Your task to perform on an android device: delete a single message in the gmail app Image 0: 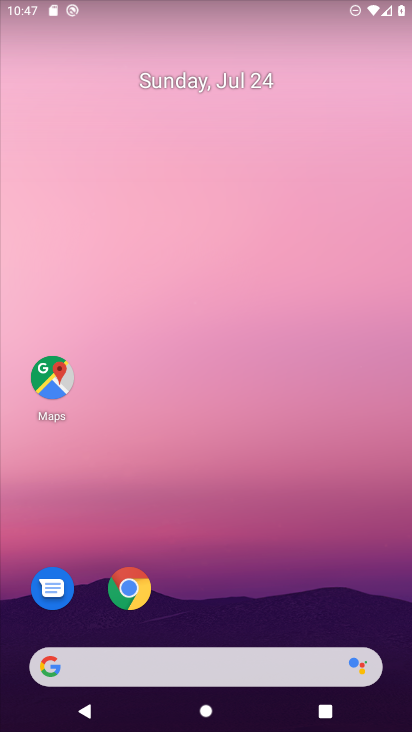
Step 0: drag from (281, 662) to (296, 82)
Your task to perform on an android device: delete a single message in the gmail app Image 1: 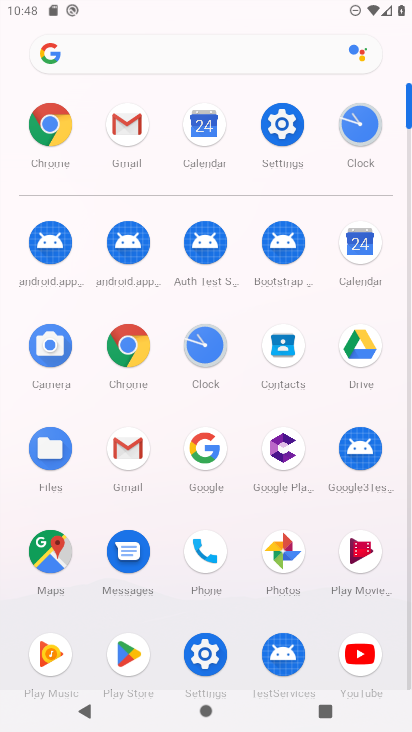
Step 1: click (131, 127)
Your task to perform on an android device: delete a single message in the gmail app Image 2: 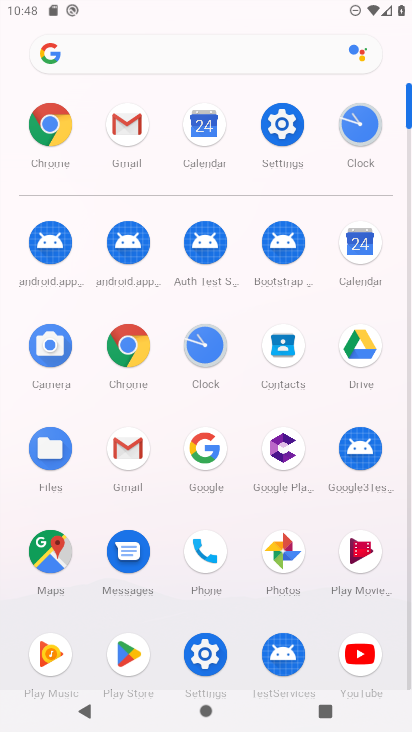
Step 2: click (131, 127)
Your task to perform on an android device: delete a single message in the gmail app Image 3: 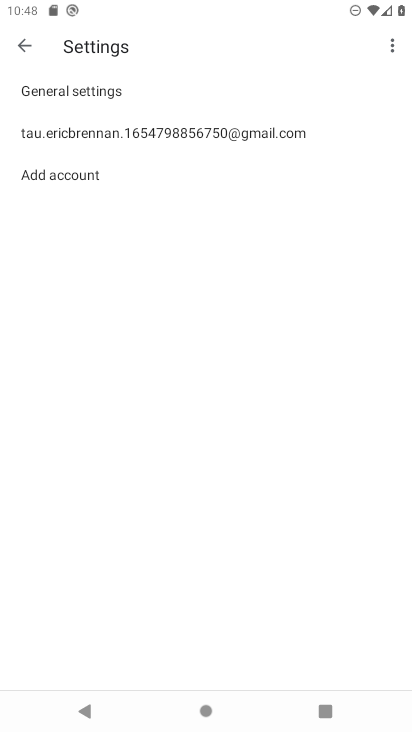
Step 3: click (24, 49)
Your task to perform on an android device: delete a single message in the gmail app Image 4: 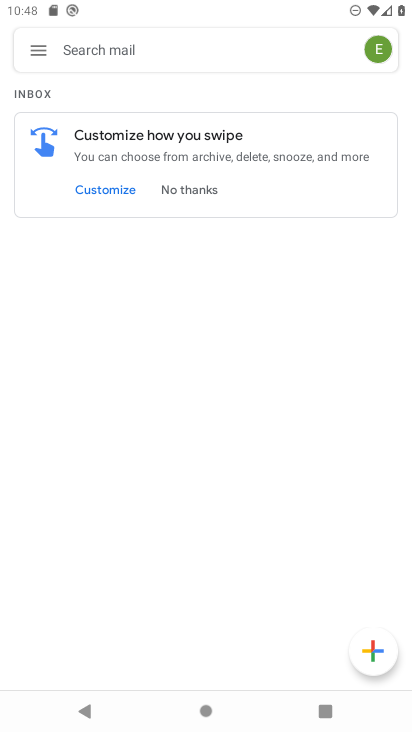
Step 4: task complete